Your task to perform on an android device: Search for a new skincare product Image 0: 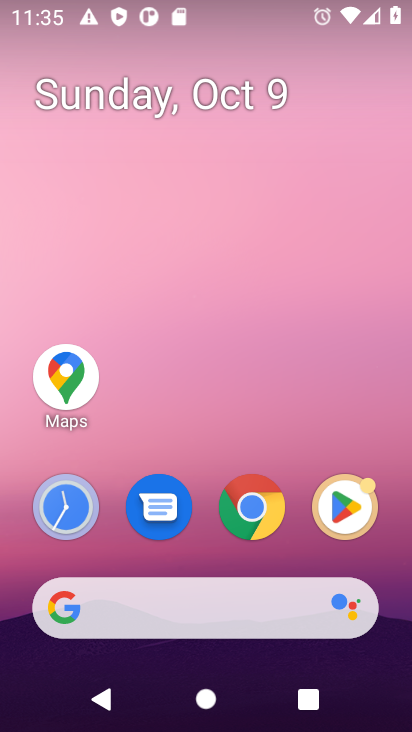
Step 0: press home button
Your task to perform on an android device: Search for a new skincare product Image 1: 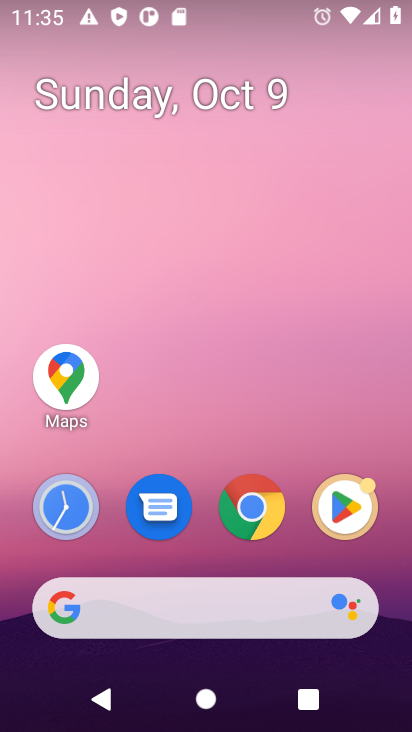
Step 1: click (236, 612)
Your task to perform on an android device: Search for a new skincare product Image 2: 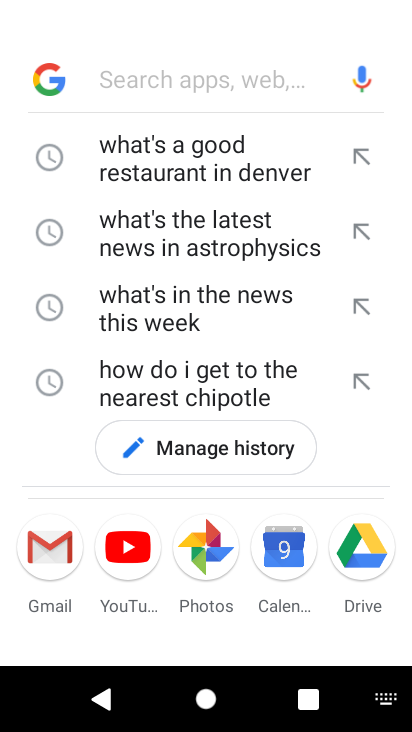
Step 2: type "Search for a new skincare product"
Your task to perform on an android device: Search for a new skincare product Image 3: 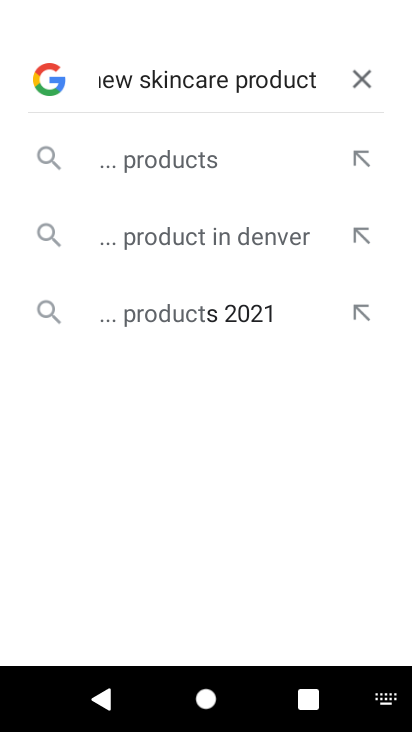
Step 3: press enter
Your task to perform on an android device: Search for a new skincare product Image 4: 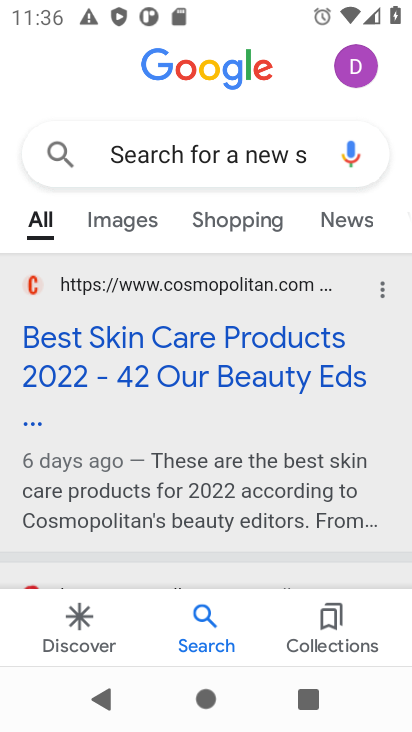
Step 4: click (286, 358)
Your task to perform on an android device: Search for a new skincare product Image 5: 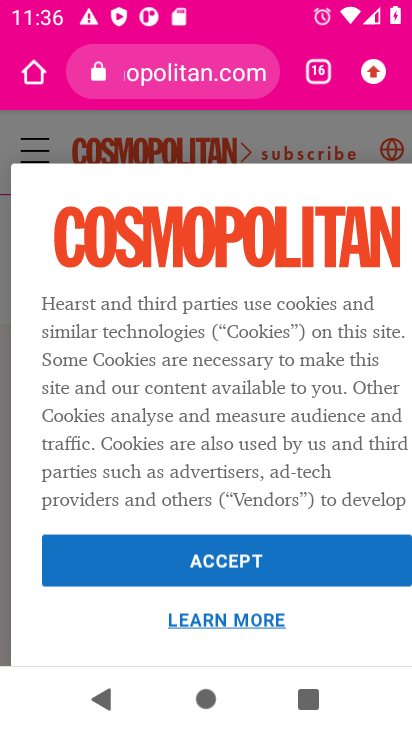
Step 5: click (300, 572)
Your task to perform on an android device: Search for a new skincare product Image 6: 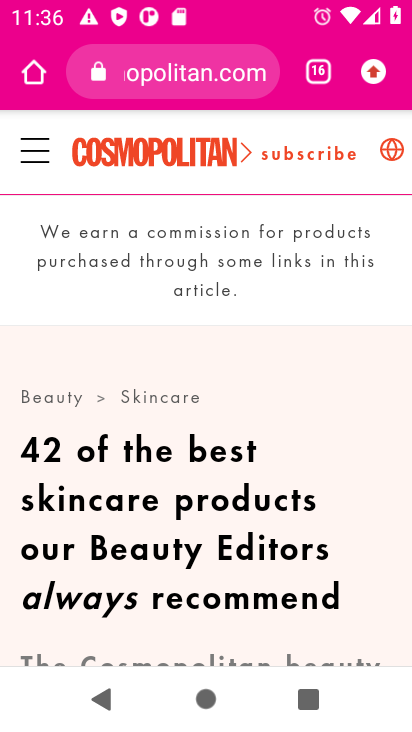
Step 6: task complete